Your task to perform on an android device: Open Youtube and go to "Your channel" Image 0: 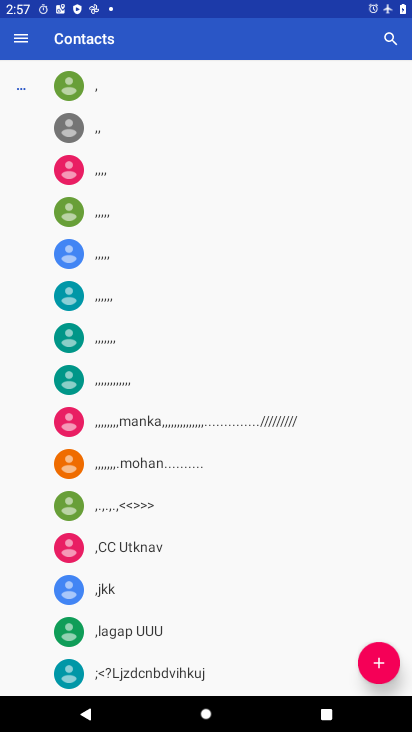
Step 0: press home button
Your task to perform on an android device: Open Youtube and go to "Your channel" Image 1: 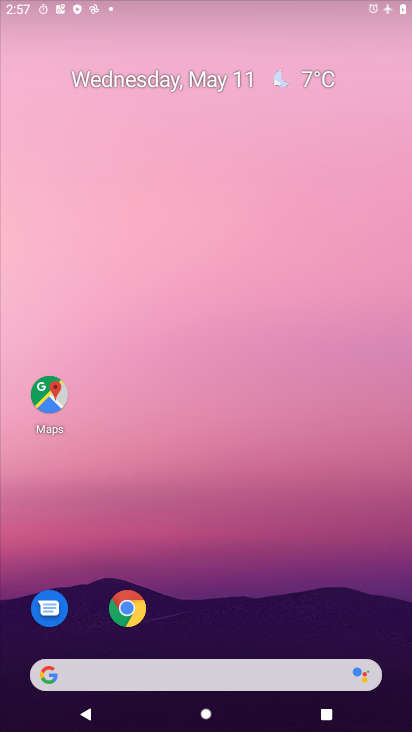
Step 1: drag from (276, 608) to (305, 116)
Your task to perform on an android device: Open Youtube and go to "Your channel" Image 2: 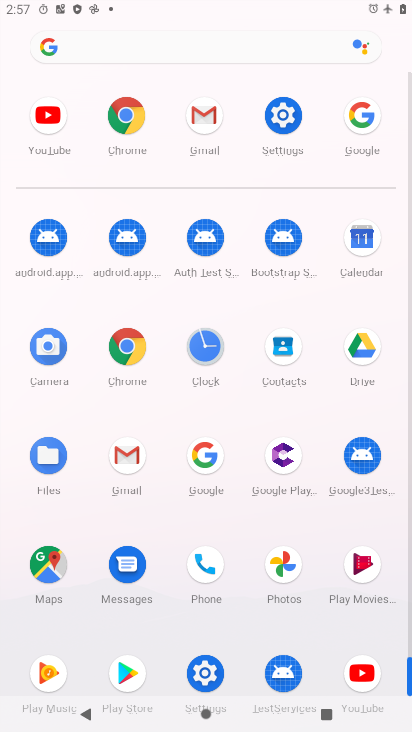
Step 2: drag from (247, 555) to (264, 295)
Your task to perform on an android device: Open Youtube and go to "Your channel" Image 3: 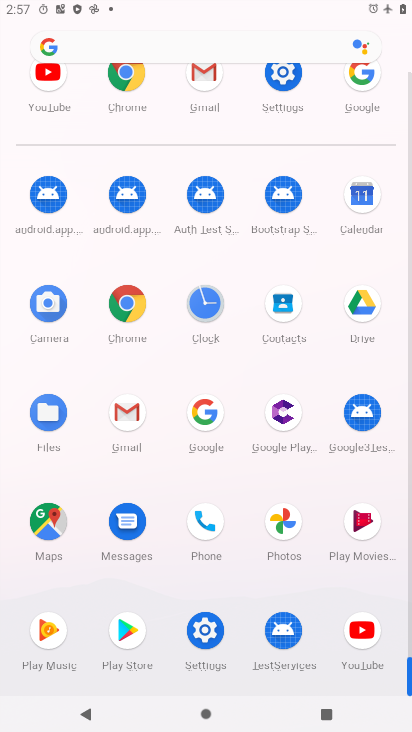
Step 3: click (358, 626)
Your task to perform on an android device: Open Youtube and go to "Your channel" Image 4: 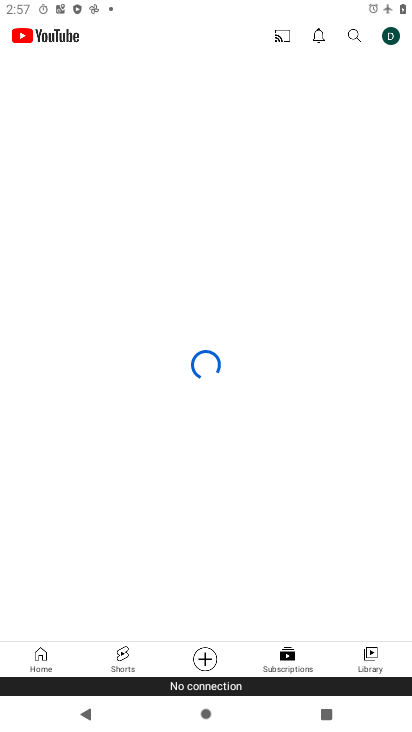
Step 4: click (387, 35)
Your task to perform on an android device: Open Youtube and go to "Your channel" Image 5: 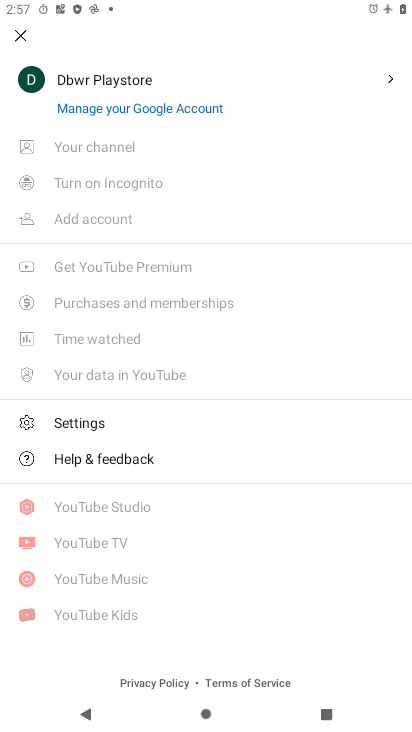
Step 5: click (128, 147)
Your task to perform on an android device: Open Youtube and go to "Your channel" Image 6: 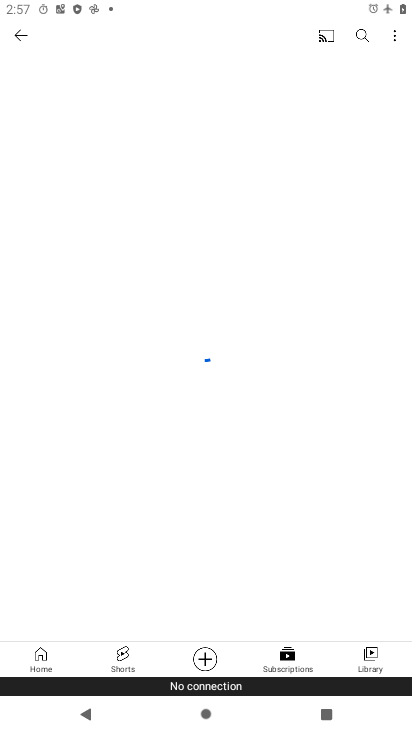
Step 6: task complete